Your task to perform on an android device: see tabs open on other devices in the chrome app Image 0: 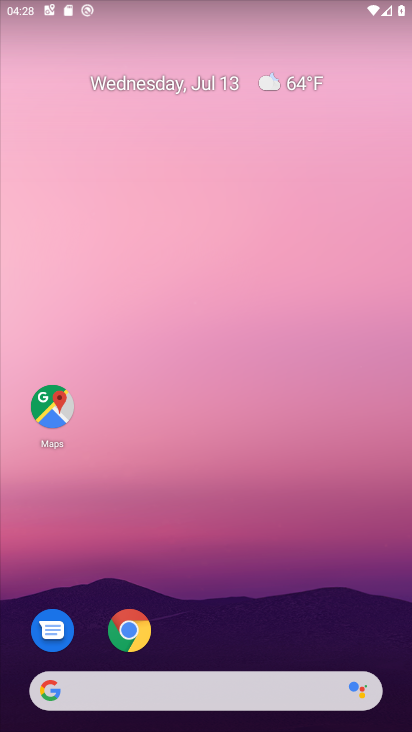
Step 0: click (122, 636)
Your task to perform on an android device: see tabs open on other devices in the chrome app Image 1: 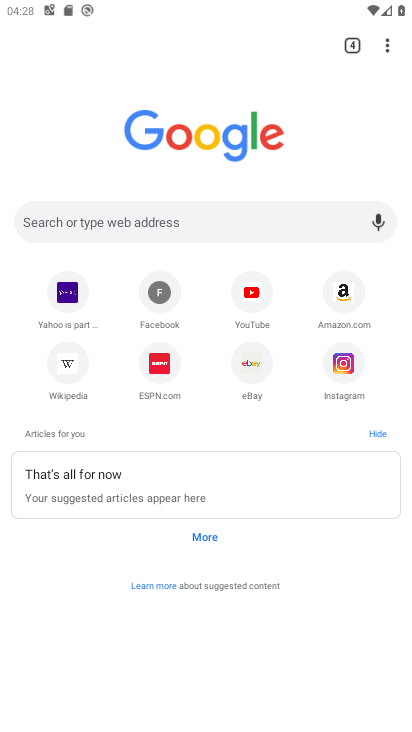
Step 1: click (393, 34)
Your task to perform on an android device: see tabs open on other devices in the chrome app Image 2: 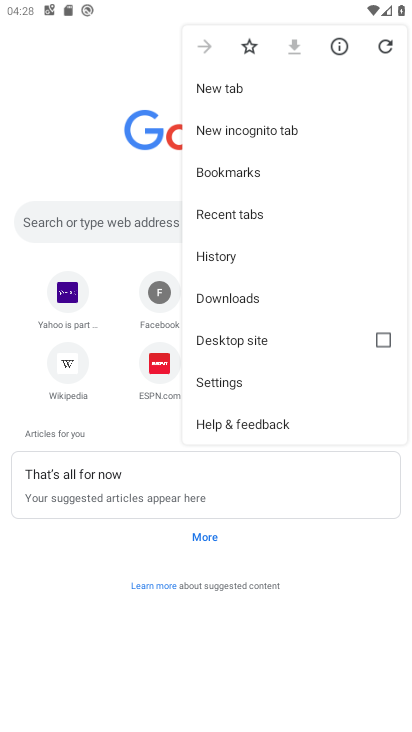
Step 2: click (213, 217)
Your task to perform on an android device: see tabs open on other devices in the chrome app Image 3: 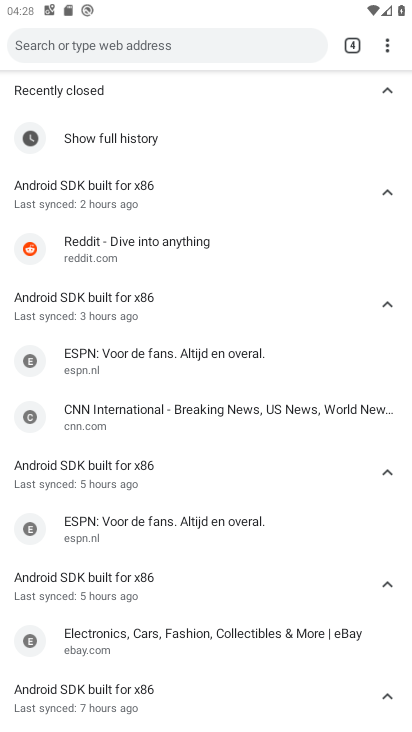
Step 3: task complete